Your task to perform on an android device: find which apps use the phone's location Image 0: 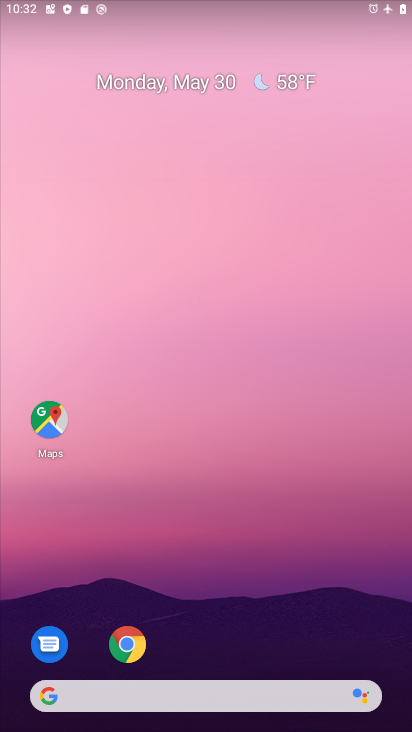
Step 0: drag from (375, 651) to (283, 164)
Your task to perform on an android device: find which apps use the phone's location Image 1: 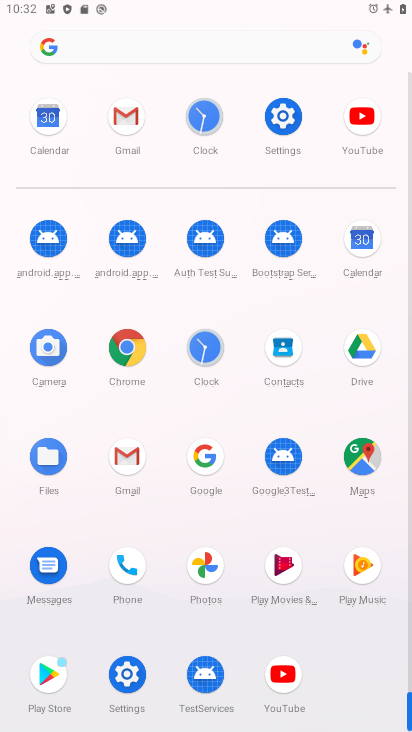
Step 1: click (126, 677)
Your task to perform on an android device: find which apps use the phone's location Image 2: 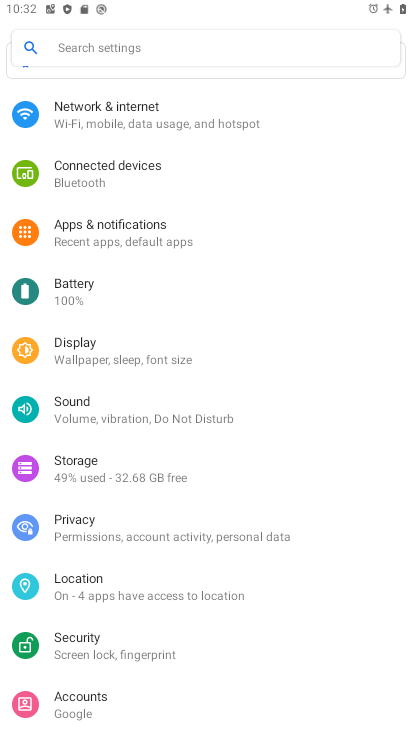
Step 2: click (93, 578)
Your task to perform on an android device: find which apps use the phone's location Image 3: 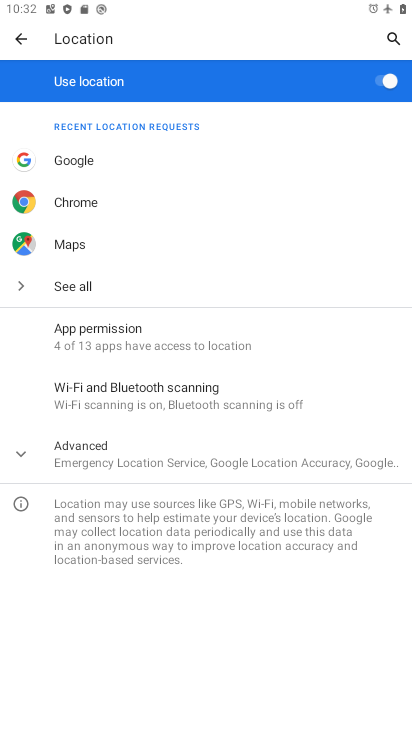
Step 3: click (66, 434)
Your task to perform on an android device: find which apps use the phone's location Image 4: 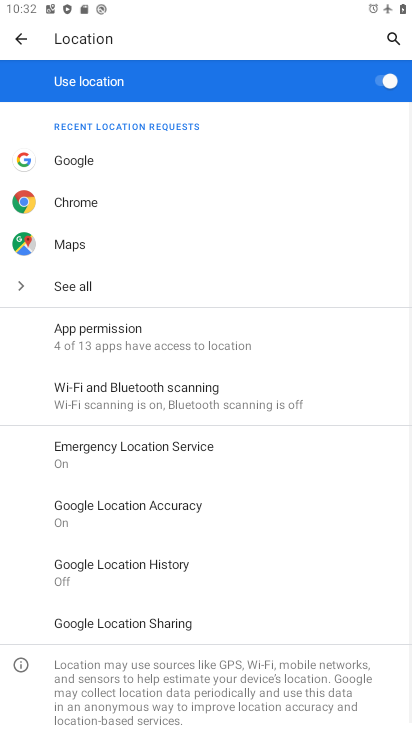
Step 4: click (84, 339)
Your task to perform on an android device: find which apps use the phone's location Image 5: 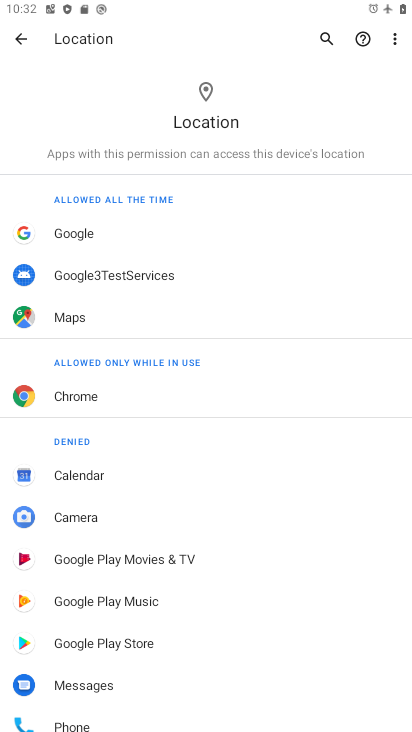
Step 5: drag from (149, 636) to (228, 176)
Your task to perform on an android device: find which apps use the phone's location Image 6: 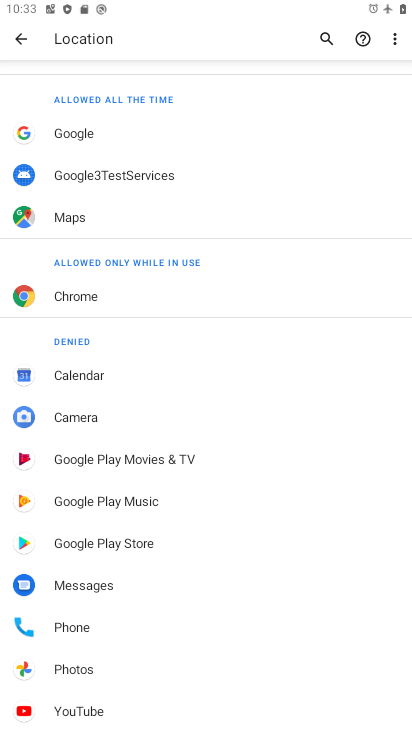
Step 6: click (62, 656)
Your task to perform on an android device: find which apps use the phone's location Image 7: 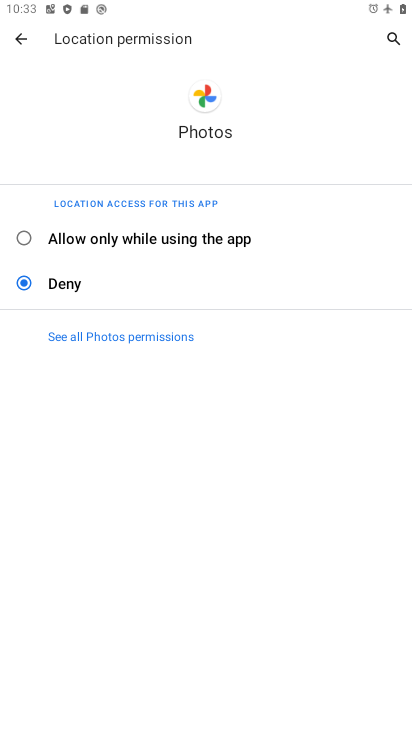
Step 7: task complete